Your task to perform on an android device: visit the assistant section in the google photos Image 0: 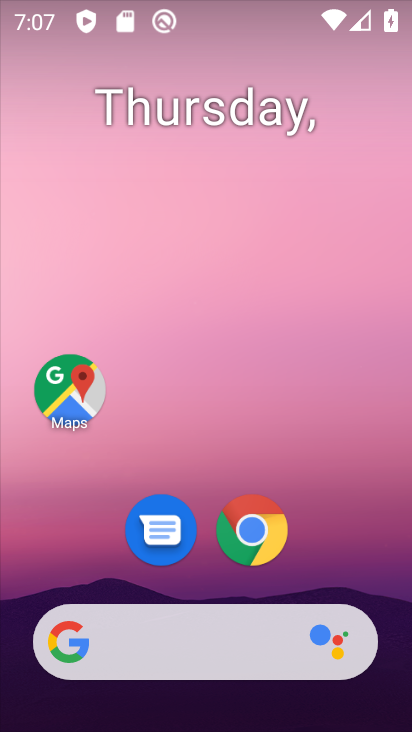
Step 0: drag from (279, 557) to (330, 246)
Your task to perform on an android device: visit the assistant section in the google photos Image 1: 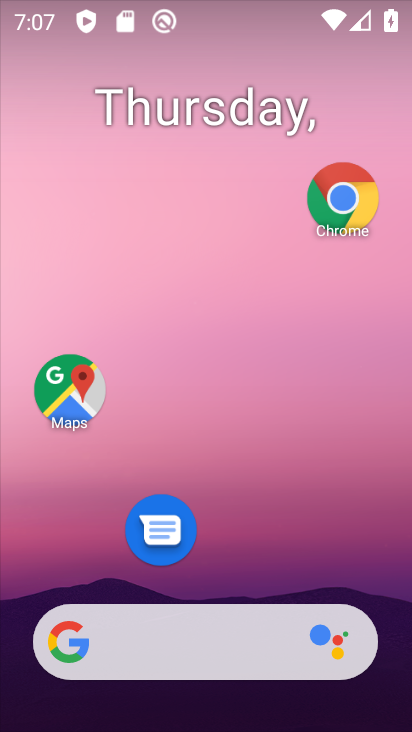
Step 1: drag from (217, 684) to (263, 102)
Your task to perform on an android device: visit the assistant section in the google photos Image 2: 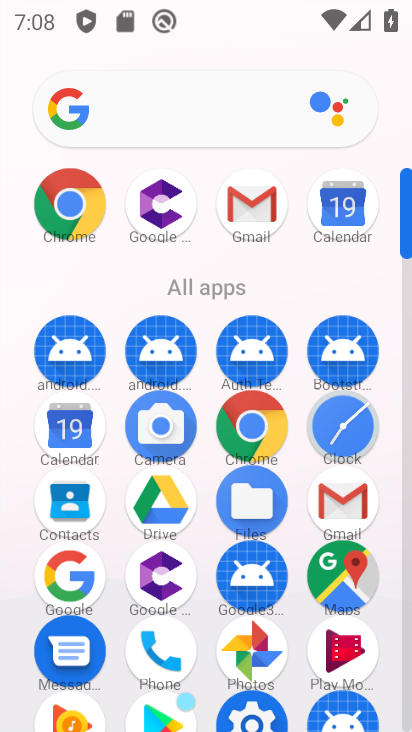
Step 2: click (245, 642)
Your task to perform on an android device: visit the assistant section in the google photos Image 3: 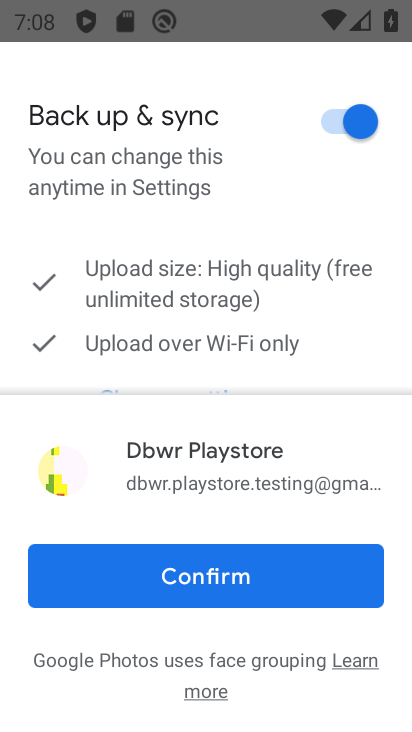
Step 3: click (247, 575)
Your task to perform on an android device: visit the assistant section in the google photos Image 4: 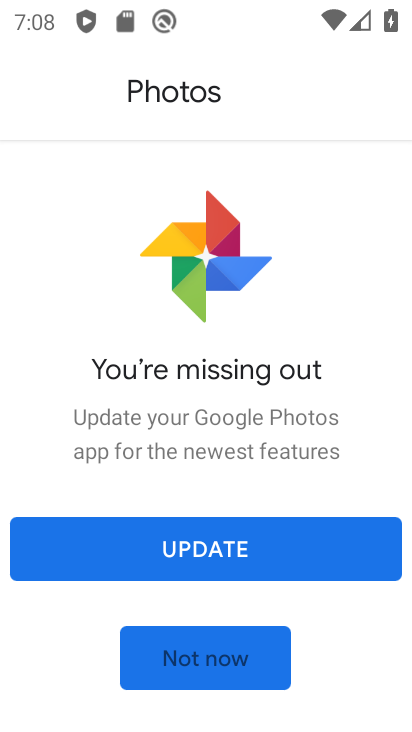
Step 4: click (256, 563)
Your task to perform on an android device: visit the assistant section in the google photos Image 5: 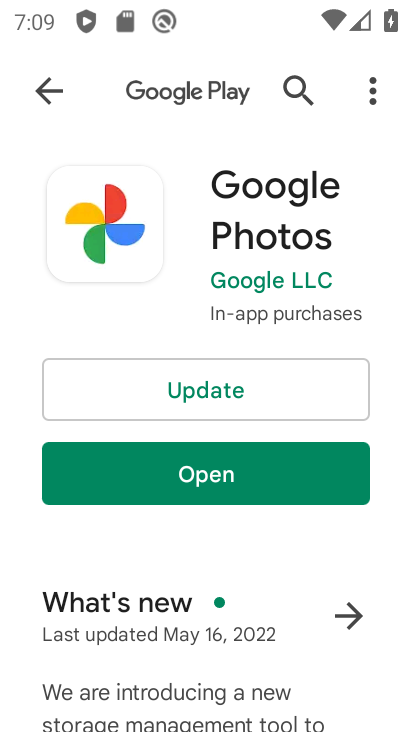
Step 5: click (240, 469)
Your task to perform on an android device: visit the assistant section in the google photos Image 6: 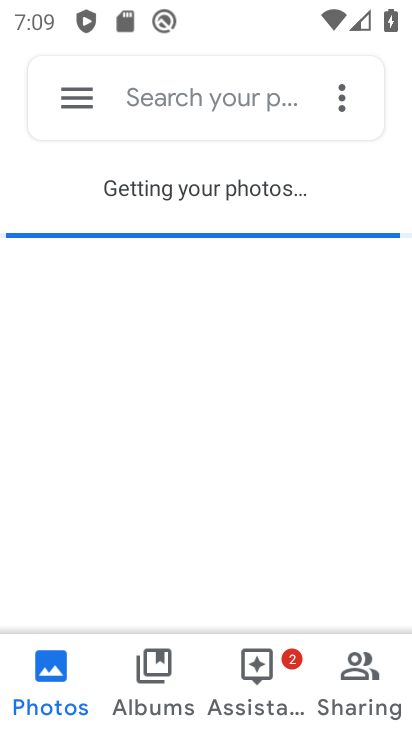
Step 6: click (266, 676)
Your task to perform on an android device: visit the assistant section in the google photos Image 7: 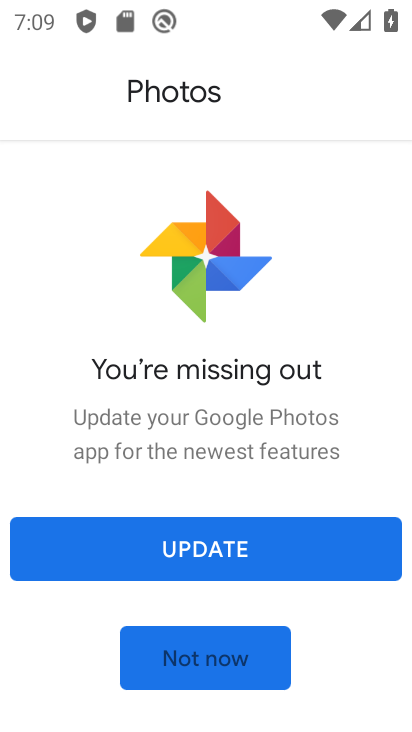
Step 7: click (266, 567)
Your task to perform on an android device: visit the assistant section in the google photos Image 8: 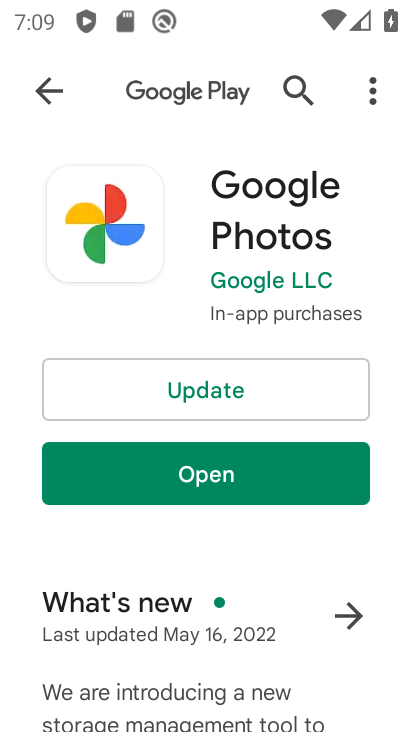
Step 8: click (281, 494)
Your task to perform on an android device: visit the assistant section in the google photos Image 9: 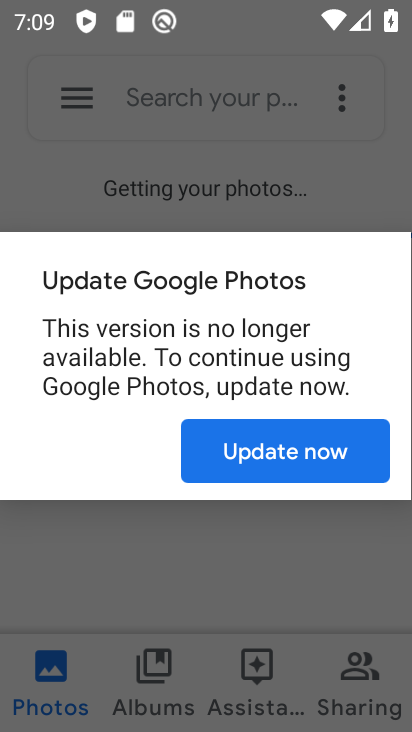
Step 9: click (253, 702)
Your task to perform on an android device: visit the assistant section in the google photos Image 10: 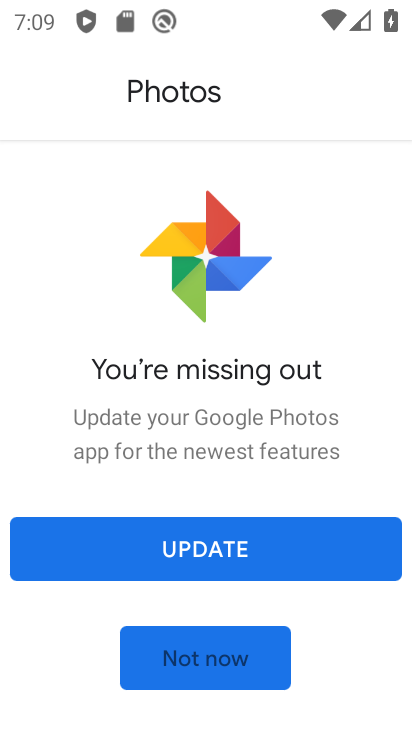
Step 10: click (243, 557)
Your task to perform on an android device: visit the assistant section in the google photos Image 11: 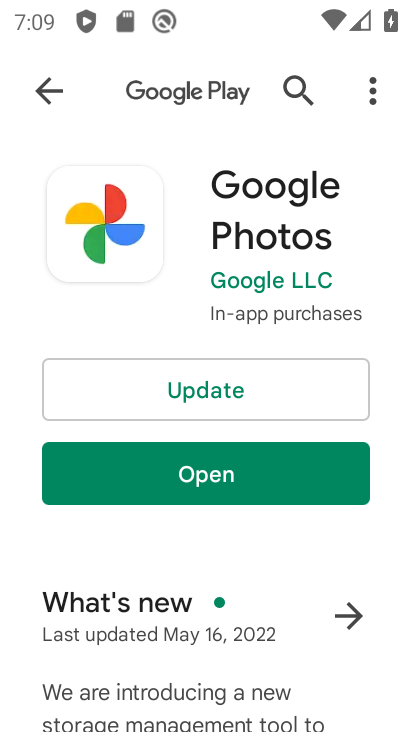
Step 11: click (264, 479)
Your task to perform on an android device: visit the assistant section in the google photos Image 12: 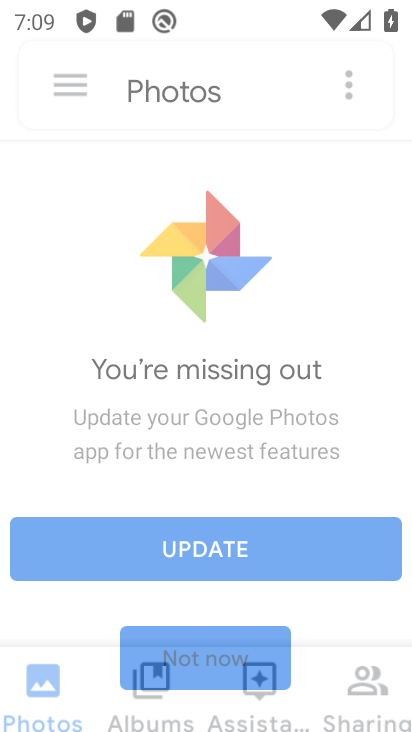
Step 12: click (254, 712)
Your task to perform on an android device: visit the assistant section in the google photos Image 13: 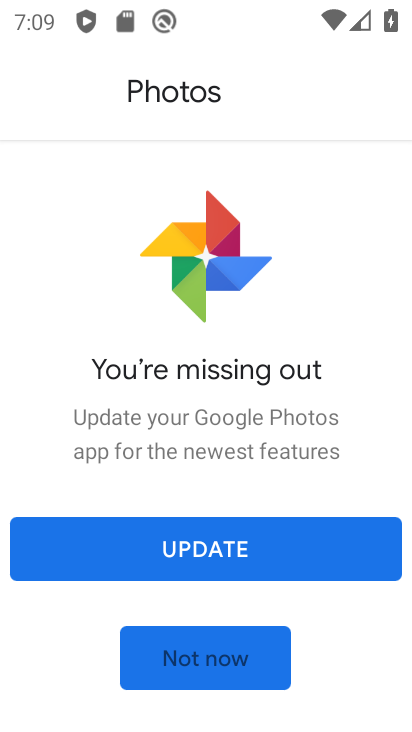
Step 13: click (254, 700)
Your task to perform on an android device: visit the assistant section in the google photos Image 14: 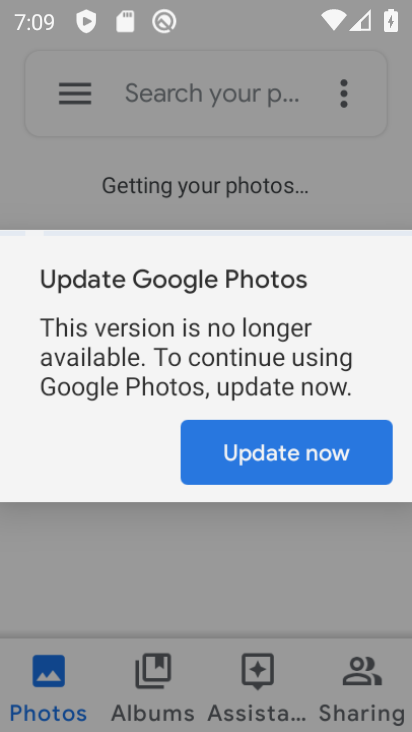
Step 14: click (240, 675)
Your task to perform on an android device: visit the assistant section in the google photos Image 15: 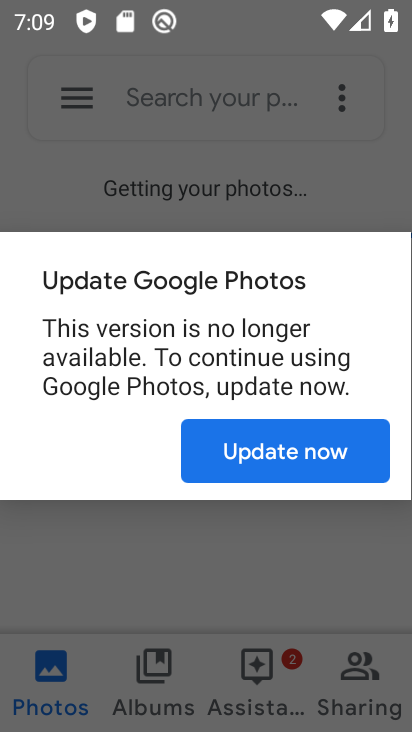
Step 15: click (280, 462)
Your task to perform on an android device: visit the assistant section in the google photos Image 16: 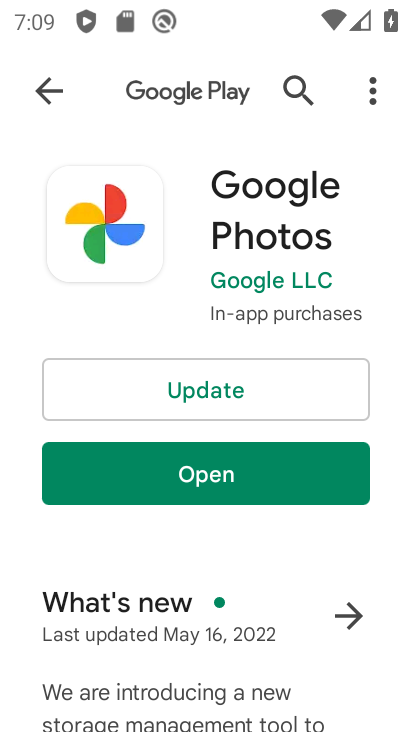
Step 16: click (252, 475)
Your task to perform on an android device: visit the assistant section in the google photos Image 17: 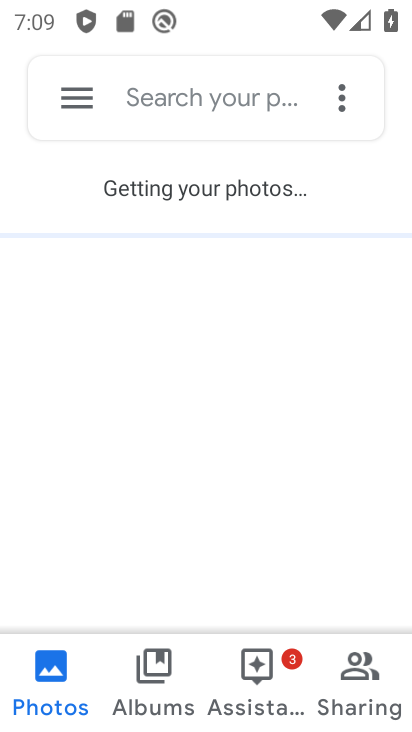
Step 17: click (255, 699)
Your task to perform on an android device: visit the assistant section in the google photos Image 18: 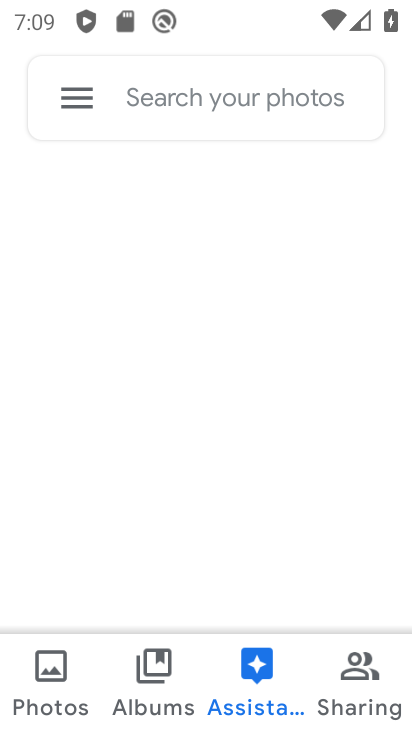
Step 18: click (254, 700)
Your task to perform on an android device: visit the assistant section in the google photos Image 19: 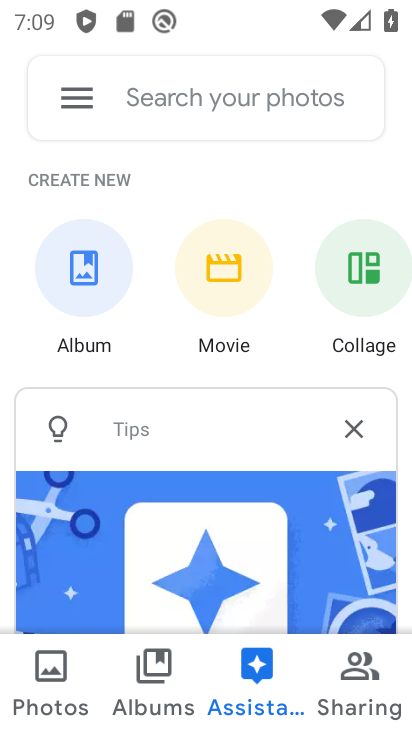
Step 19: task complete